Your task to perform on an android device: Open Google Image 0: 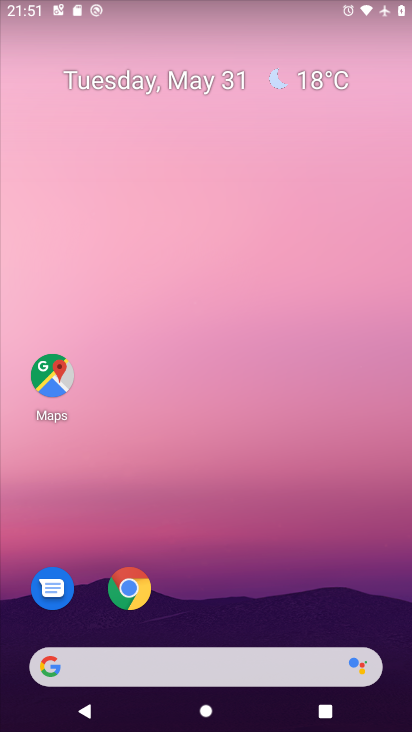
Step 0: press home button
Your task to perform on an android device: Open Google Image 1: 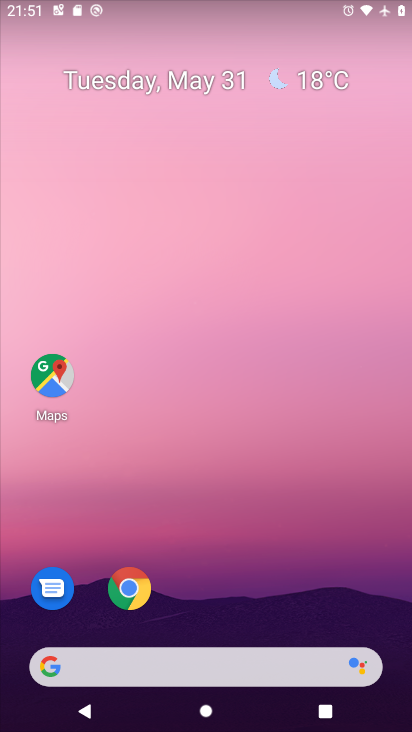
Step 1: drag from (220, 387) to (321, 35)
Your task to perform on an android device: Open Google Image 2: 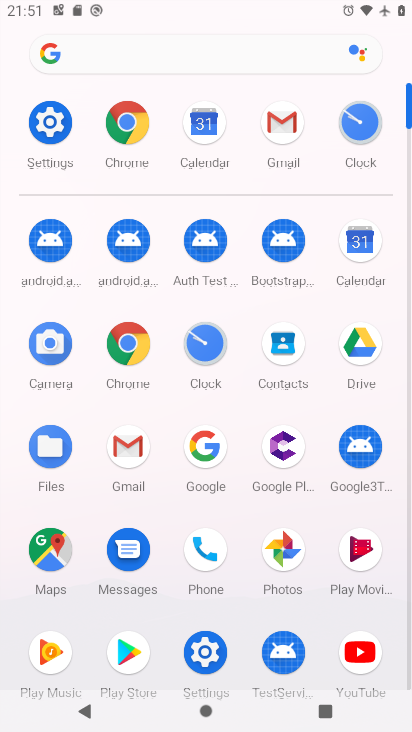
Step 2: click (214, 451)
Your task to perform on an android device: Open Google Image 3: 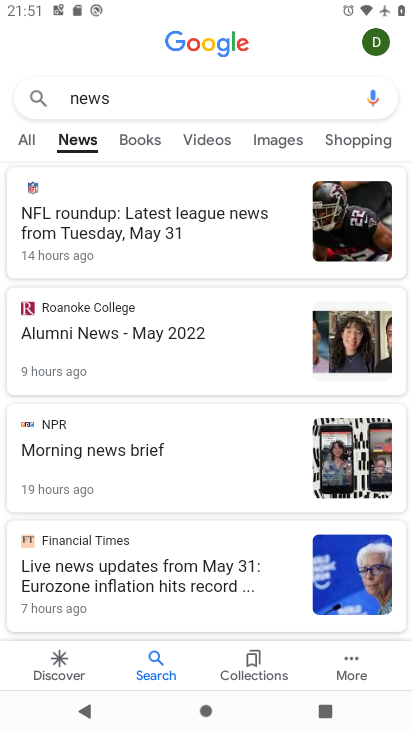
Step 3: task complete